Your task to perform on an android device: change alarm snooze length Image 0: 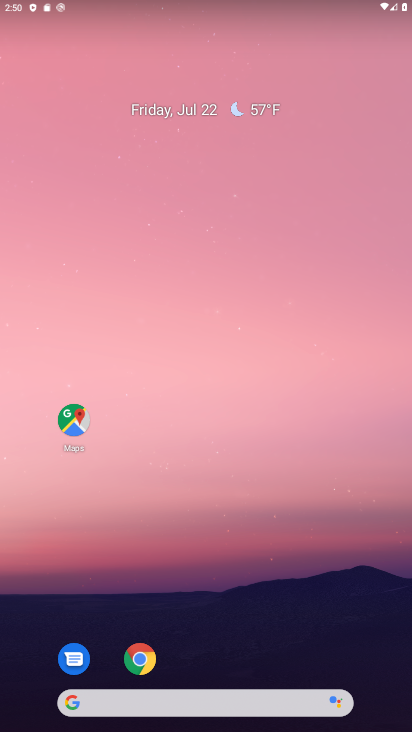
Step 0: drag from (217, 498) to (161, 232)
Your task to perform on an android device: change alarm snooze length Image 1: 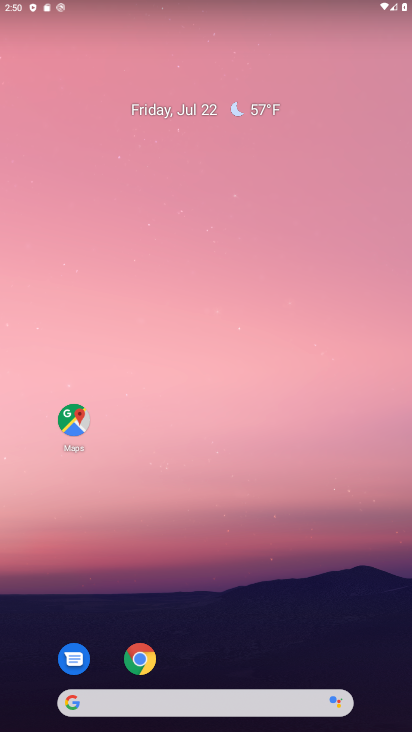
Step 1: drag from (235, 539) to (271, 137)
Your task to perform on an android device: change alarm snooze length Image 2: 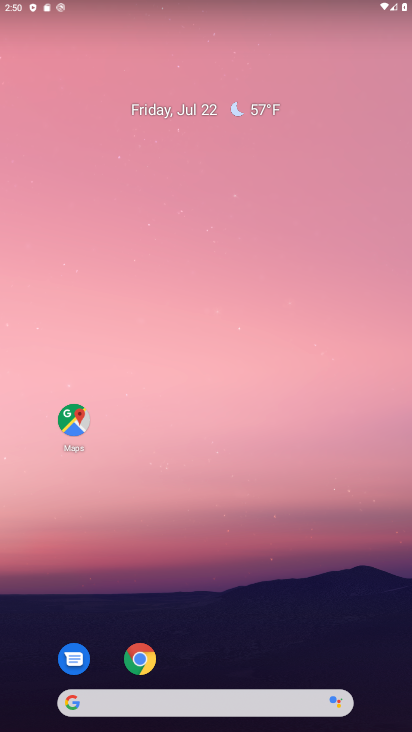
Step 2: drag from (281, 459) to (226, 20)
Your task to perform on an android device: change alarm snooze length Image 3: 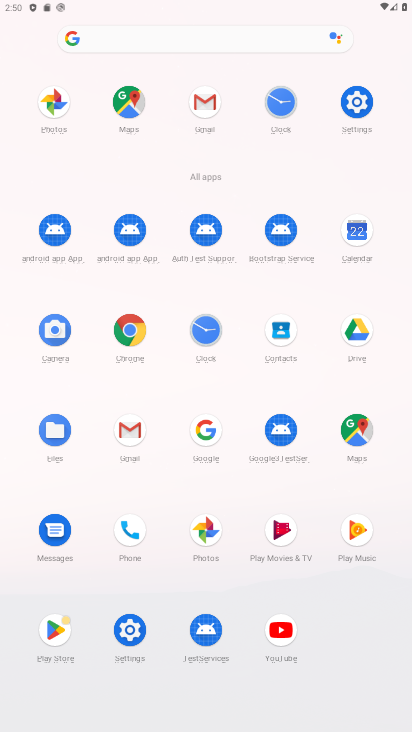
Step 3: drag from (271, 361) to (254, 0)
Your task to perform on an android device: change alarm snooze length Image 4: 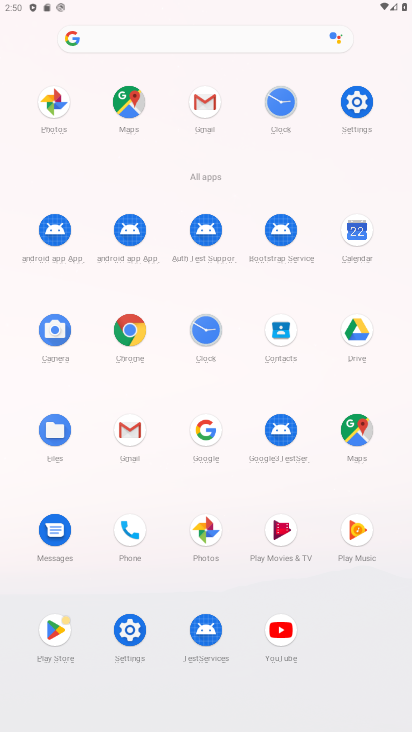
Step 4: click (204, 327)
Your task to perform on an android device: change alarm snooze length Image 5: 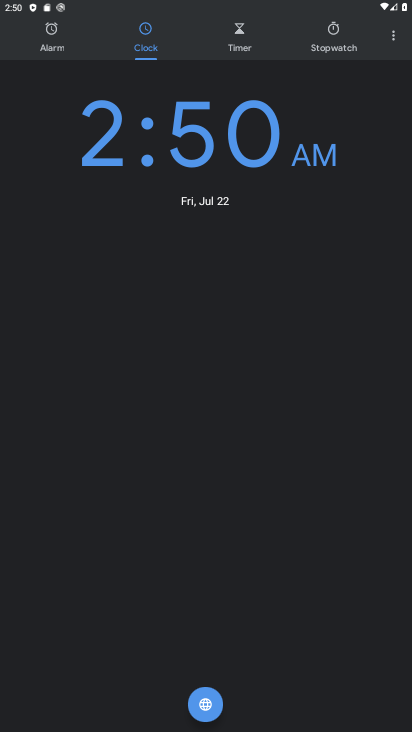
Step 5: click (207, 323)
Your task to perform on an android device: change alarm snooze length Image 6: 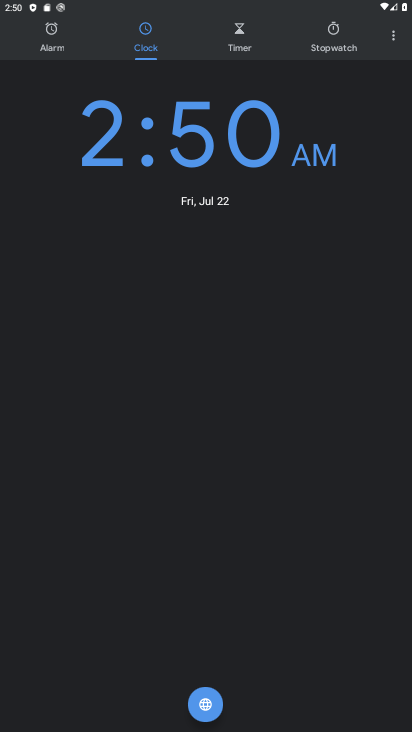
Step 6: click (208, 323)
Your task to perform on an android device: change alarm snooze length Image 7: 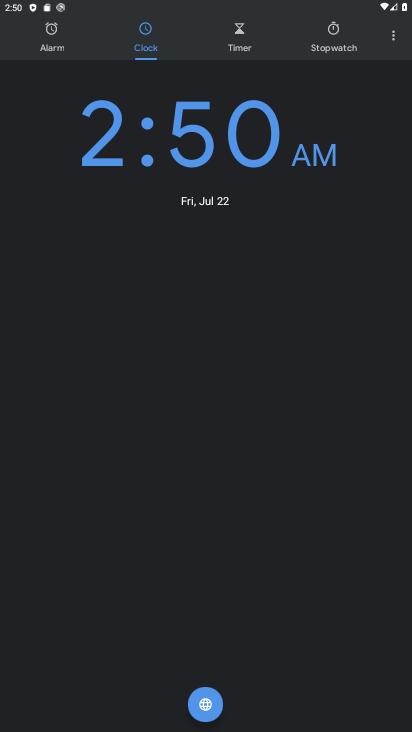
Step 7: click (210, 325)
Your task to perform on an android device: change alarm snooze length Image 8: 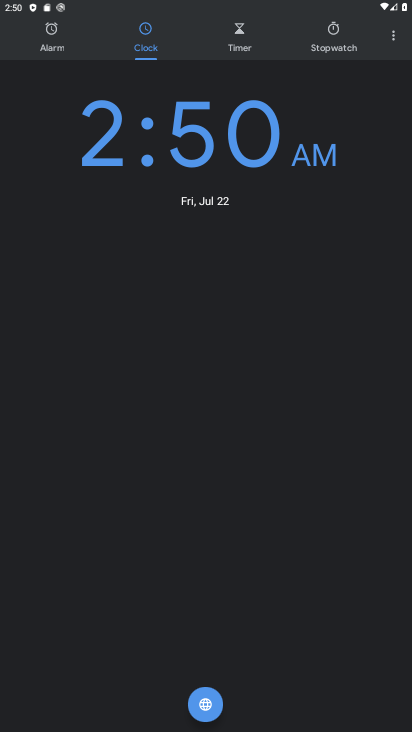
Step 8: click (210, 325)
Your task to perform on an android device: change alarm snooze length Image 9: 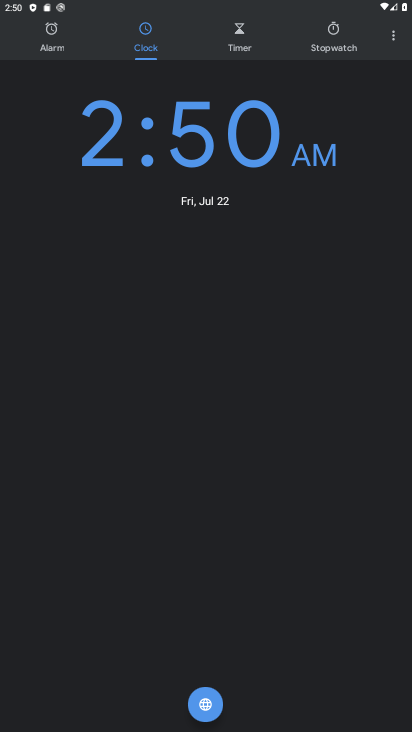
Step 9: click (394, 40)
Your task to perform on an android device: change alarm snooze length Image 10: 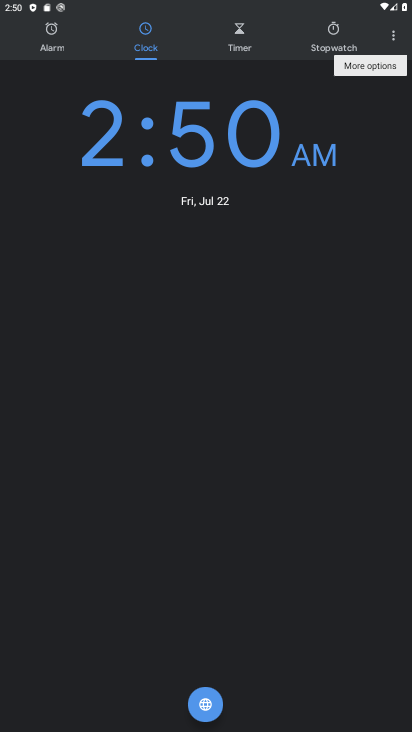
Step 10: click (392, 42)
Your task to perform on an android device: change alarm snooze length Image 11: 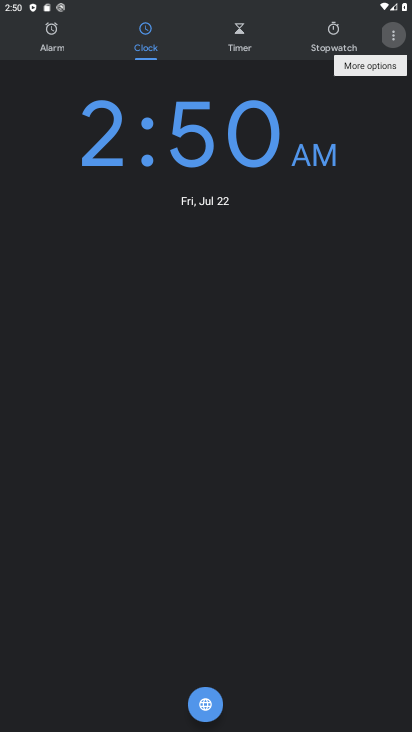
Step 11: click (390, 32)
Your task to perform on an android device: change alarm snooze length Image 12: 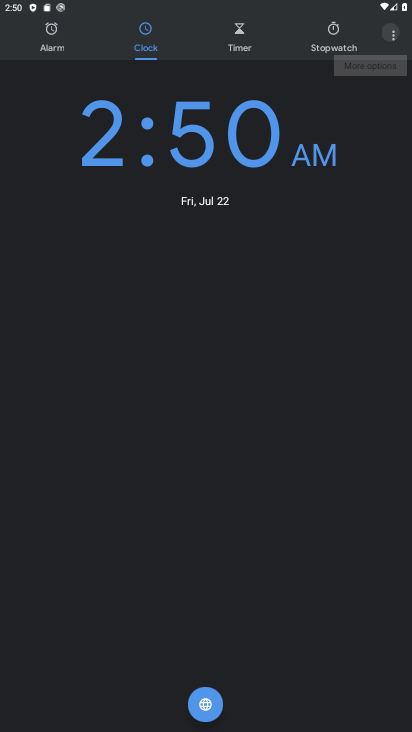
Step 12: click (392, 36)
Your task to perform on an android device: change alarm snooze length Image 13: 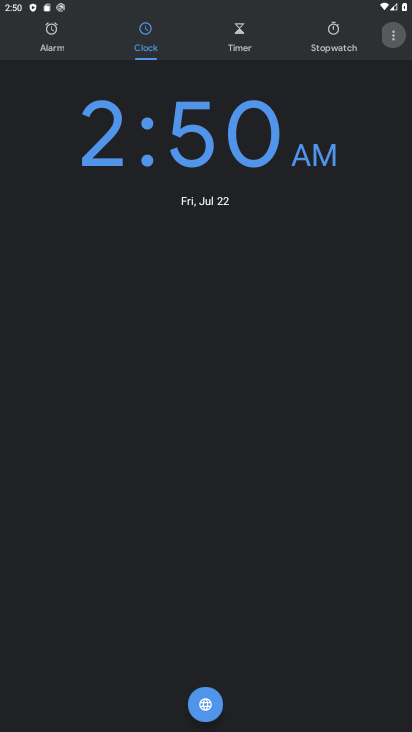
Step 13: click (389, 46)
Your task to perform on an android device: change alarm snooze length Image 14: 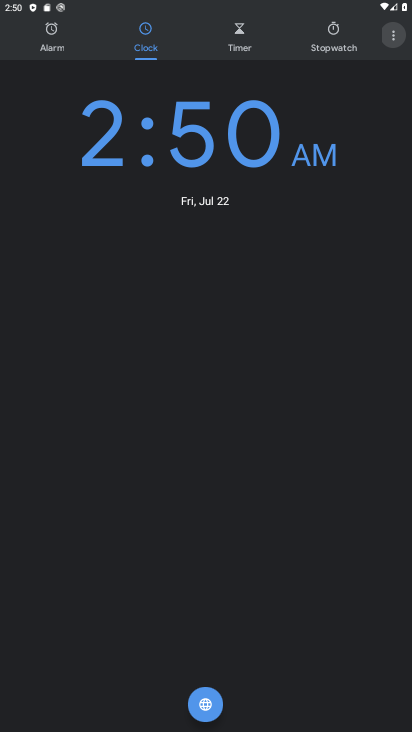
Step 14: click (387, 48)
Your task to perform on an android device: change alarm snooze length Image 15: 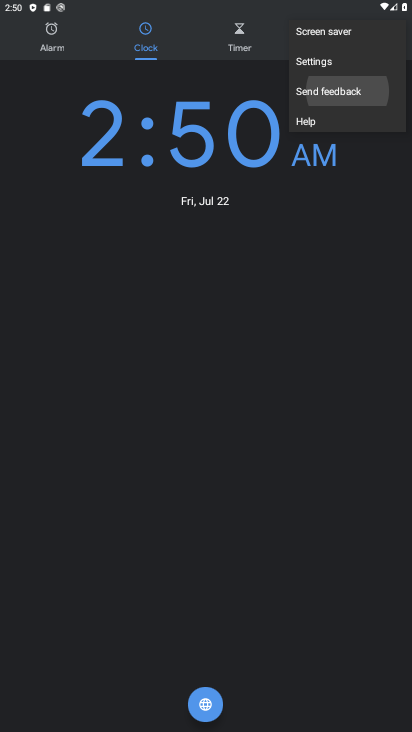
Step 15: click (387, 48)
Your task to perform on an android device: change alarm snooze length Image 16: 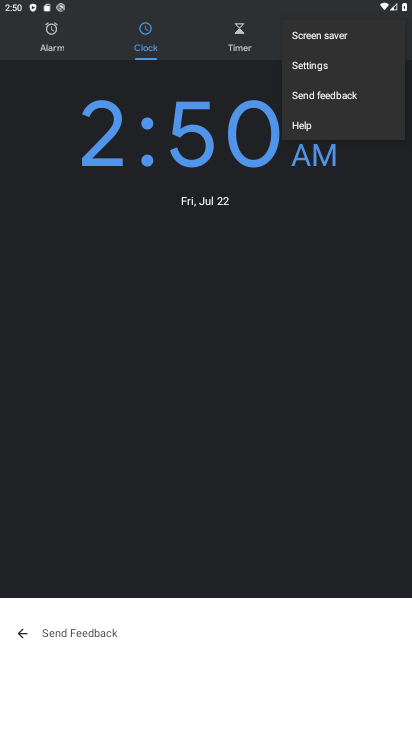
Step 16: click (321, 66)
Your task to perform on an android device: change alarm snooze length Image 17: 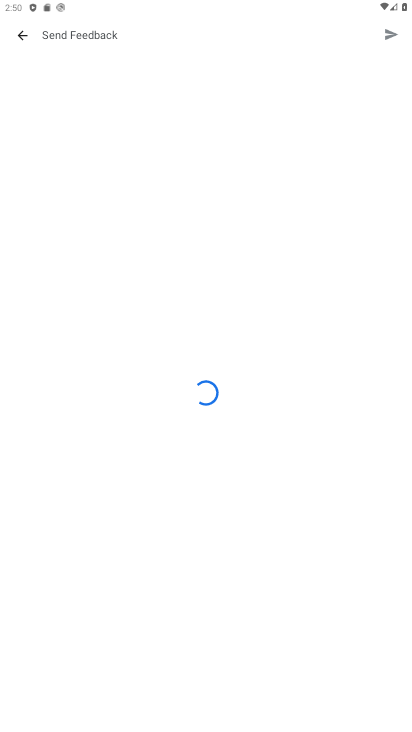
Step 17: click (318, 67)
Your task to perform on an android device: change alarm snooze length Image 18: 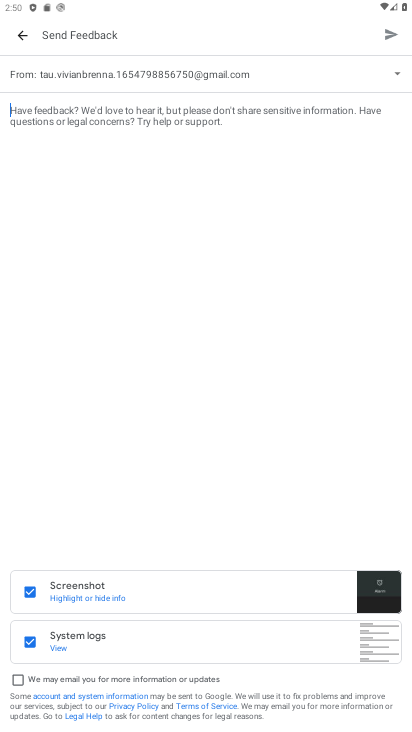
Step 18: click (18, 24)
Your task to perform on an android device: change alarm snooze length Image 19: 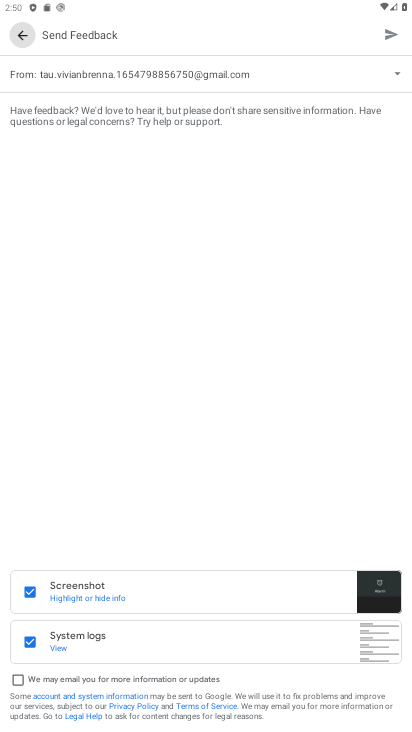
Step 19: click (16, 29)
Your task to perform on an android device: change alarm snooze length Image 20: 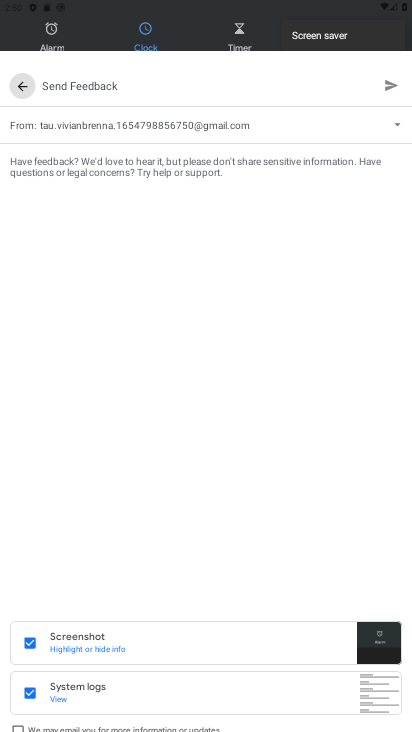
Step 20: click (16, 29)
Your task to perform on an android device: change alarm snooze length Image 21: 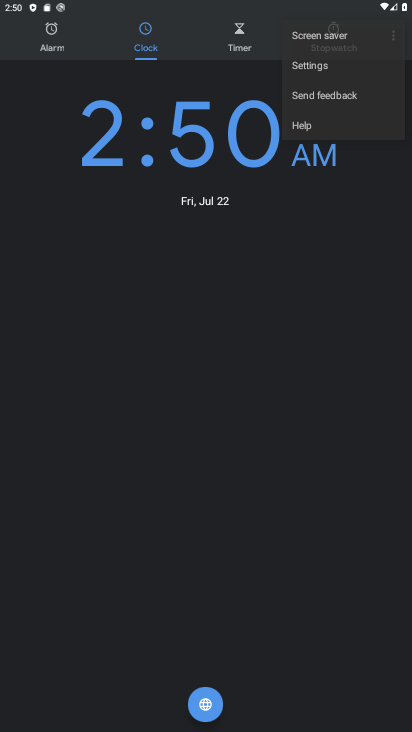
Step 21: click (17, 29)
Your task to perform on an android device: change alarm snooze length Image 22: 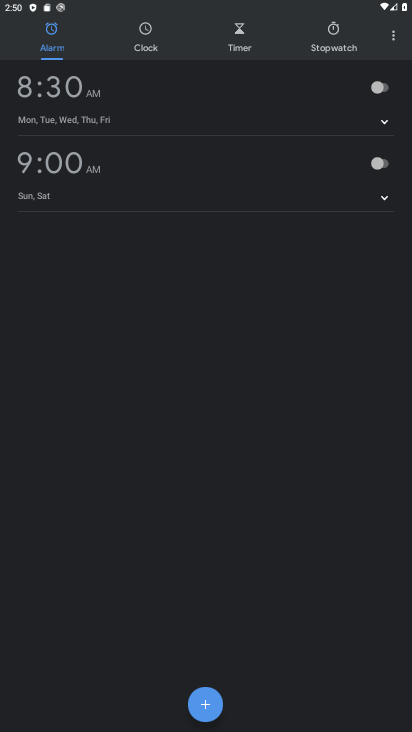
Step 22: click (395, 35)
Your task to perform on an android device: change alarm snooze length Image 23: 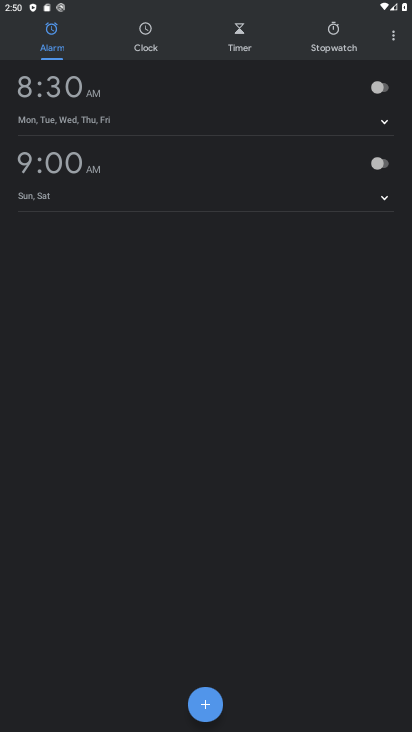
Step 23: click (396, 34)
Your task to perform on an android device: change alarm snooze length Image 24: 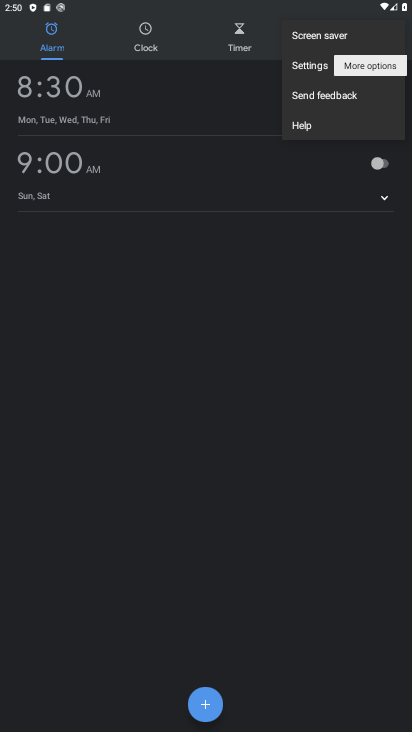
Step 24: click (310, 69)
Your task to perform on an android device: change alarm snooze length Image 25: 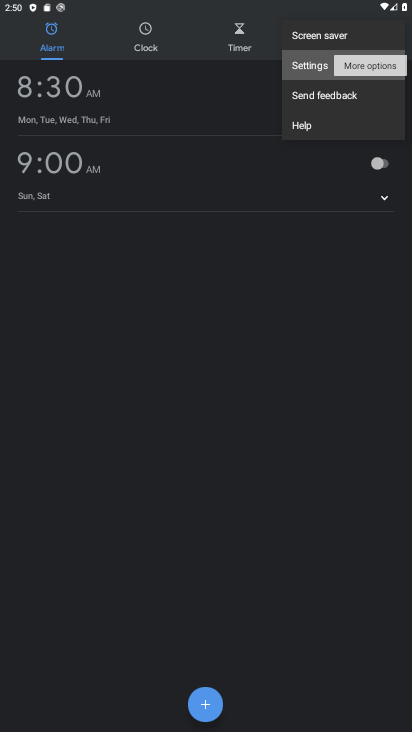
Step 25: click (310, 69)
Your task to perform on an android device: change alarm snooze length Image 26: 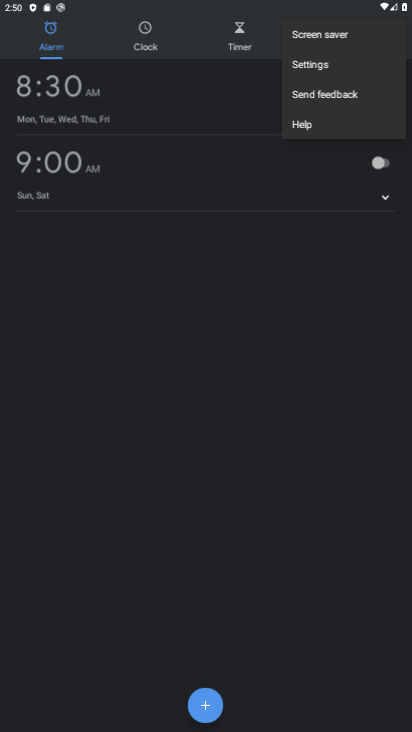
Step 26: click (310, 69)
Your task to perform on an android device: change alarm snooze length Image 27: 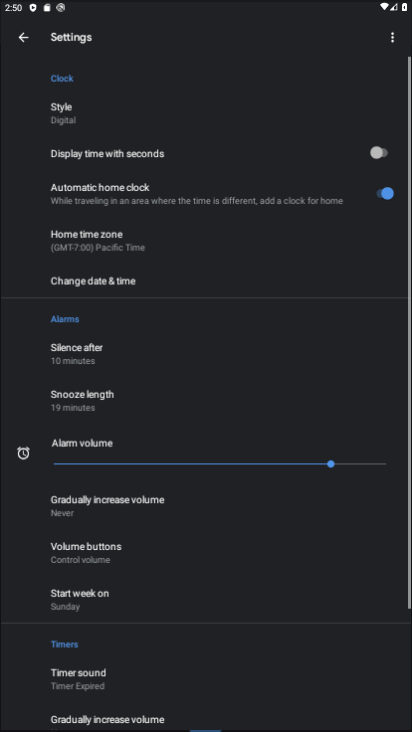
Step 27: click (310, 69)
Your task to perform on an android device: change alarm snooze length Image 28: 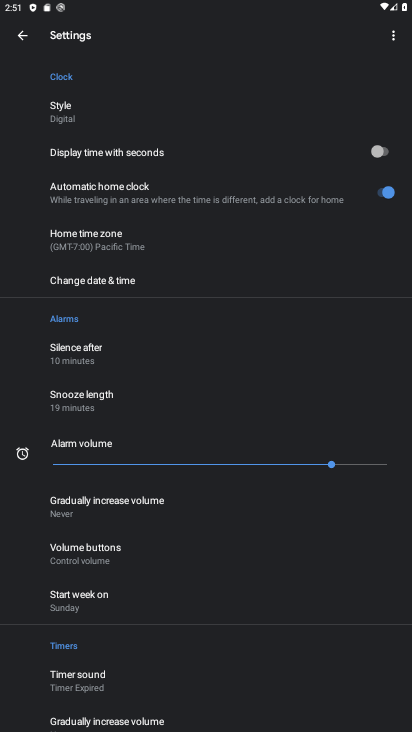
Step 28: click (61, 405)
Your task to perform on an android device: change alarm snooze length Image 29: 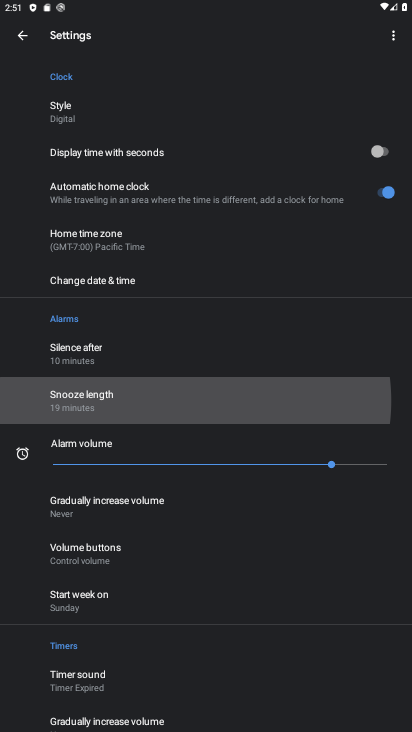
Step 29: click (79, 381)
Your task to perform on an android device: change alarm snooze length Image 30: 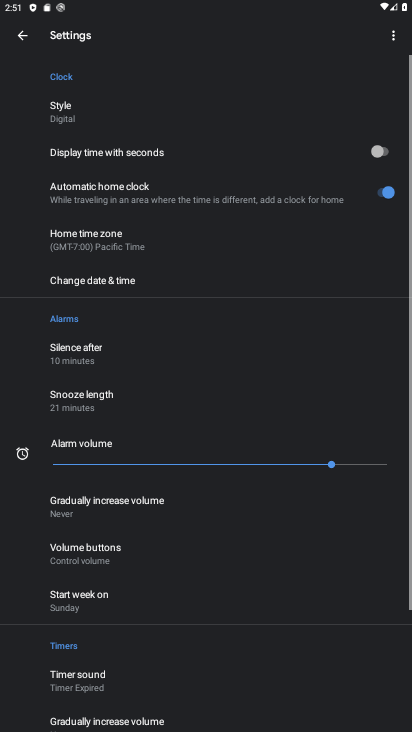
Step 30: click (60, 390)
Your task to perform on an android device: change alarm snooze length Image 31: 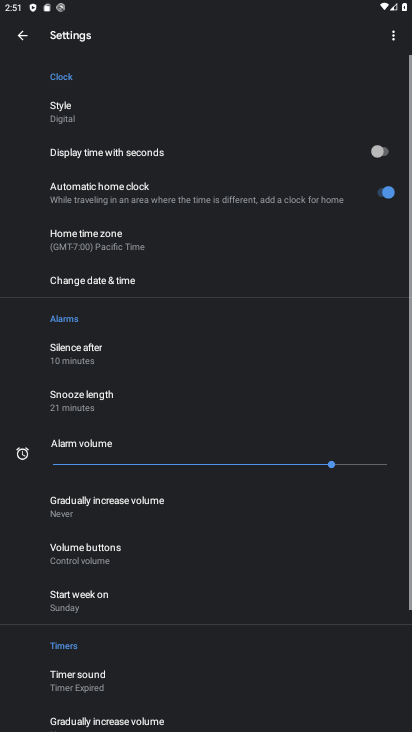
Step 31: click (60, 390)
Your task to perform on an android device: change alarm snooze length Image 32: 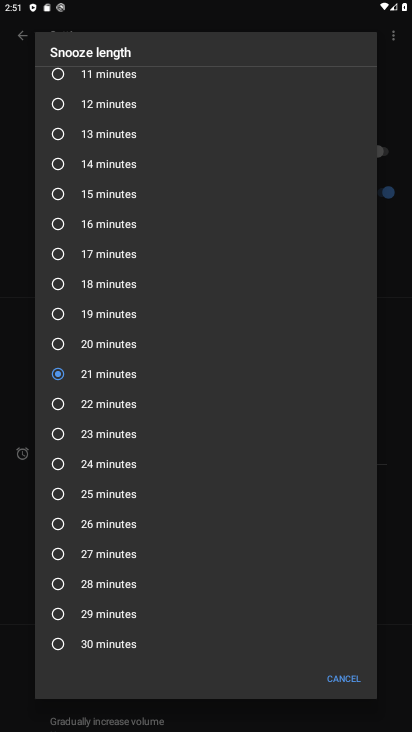
Step 32: task complete